Your task to perform on an android device: Open calendar and show me the first week of next month Image 0: 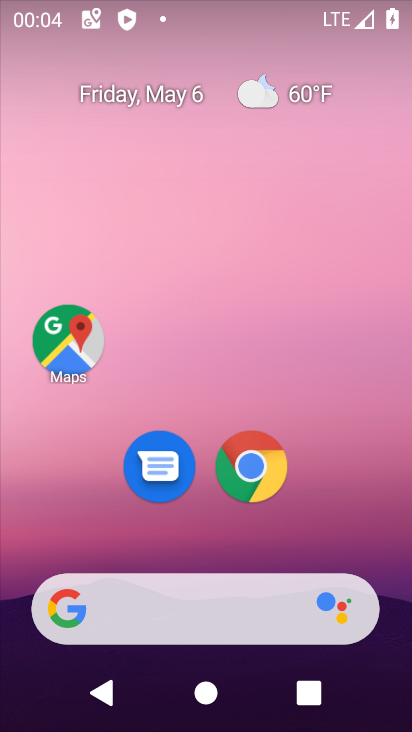
Step 0: drag from (230, 473) to (209, 250)
Your task to perform on an android device: Open calendar and show me the first week of next month Image 1: 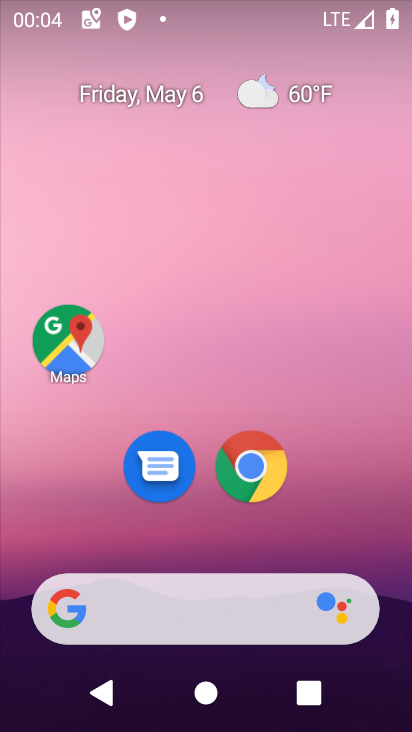
Step 1: drag from (186, 576) to (217, 92)
Your task to perform on an android device: Open calendar and show me the first week of next month Image 2: 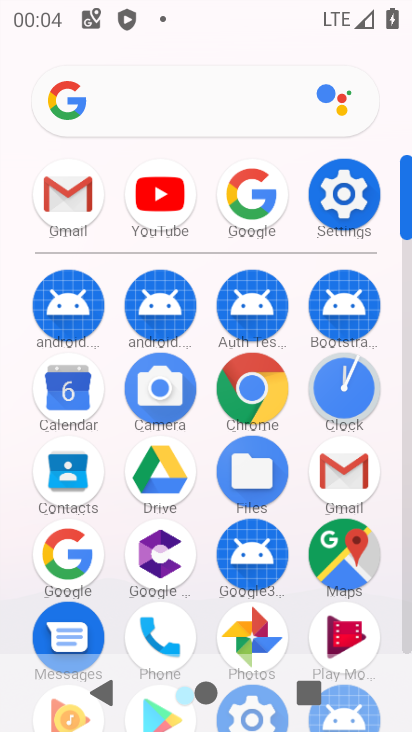
Step 2: click (63, 399)
Your task to perform on an android device: Open calendar and show me the first week of next month Image 3: 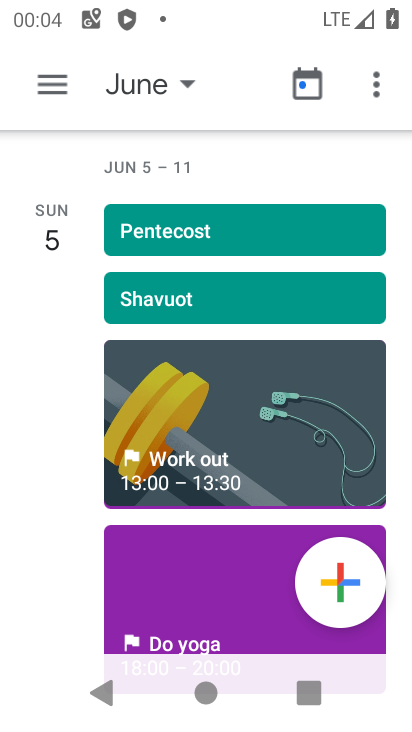
Step 3: click (142, 82)
Your task to perform on an android device: Open calendar and show me the first week of next month Image 4: 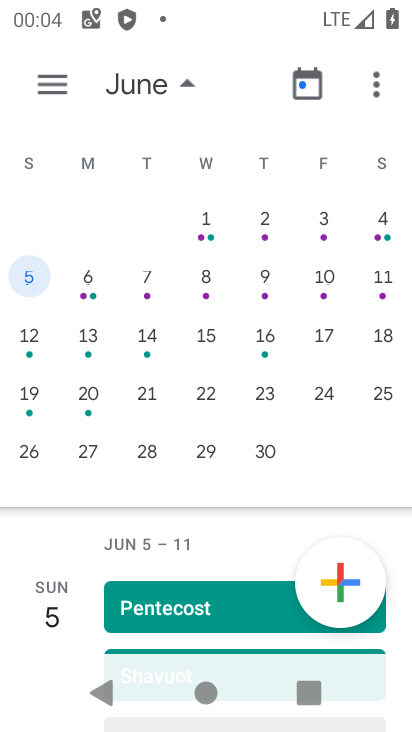
Step 4: click (200, 224)
Your task to perform on an android device: Open calendar and show me the first week of next month Image 5: 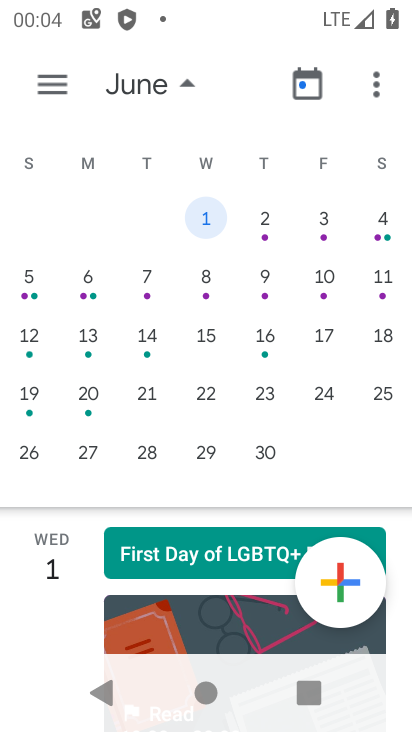
Step 5: task complete